Your task to perform on an android device: Search for "macbook pro 13 inch" on ebay.com, select the first entry, add it to the cart, then select checkout. Image 0: 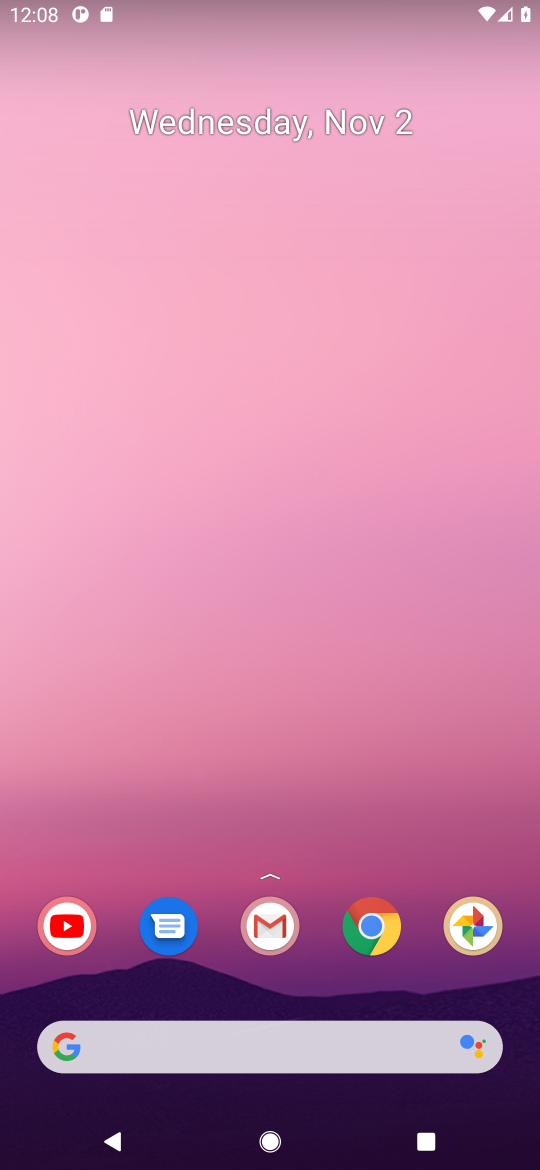
Step 0: click (377, 934)
Your task to perform on an android device: Search for "macbook pro 13 inch" on ebay.com, select the first entry, add it to the cart, then select checkout. Image 1: 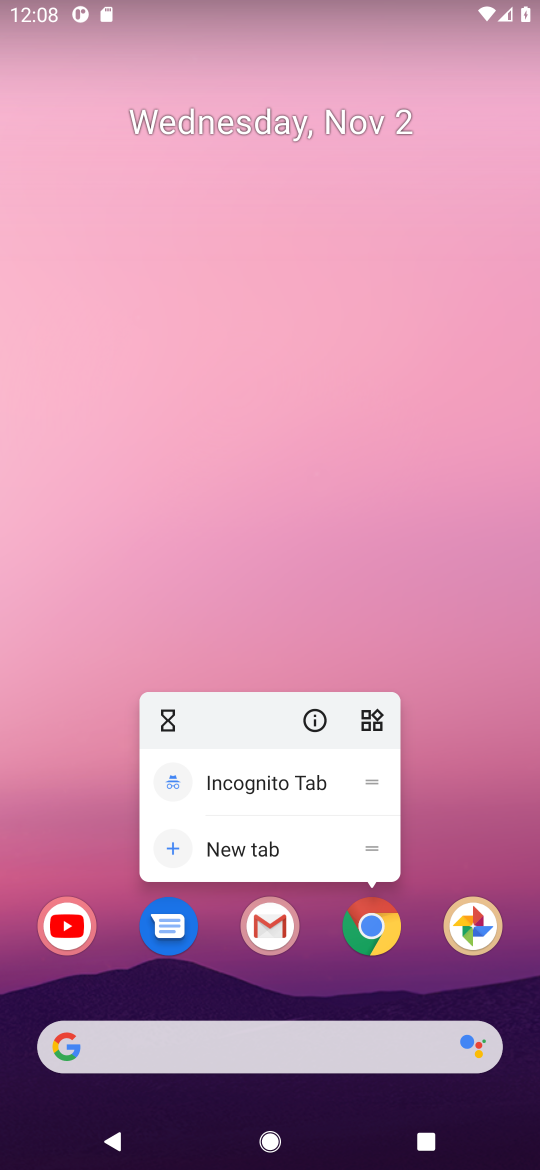
Step 1: click (377, 934)
Your task to perform on an android device: Search for "macbook pro 13 inch" on ebay.com, select the first entry, add it to the cart, then select checkout. Image 2: 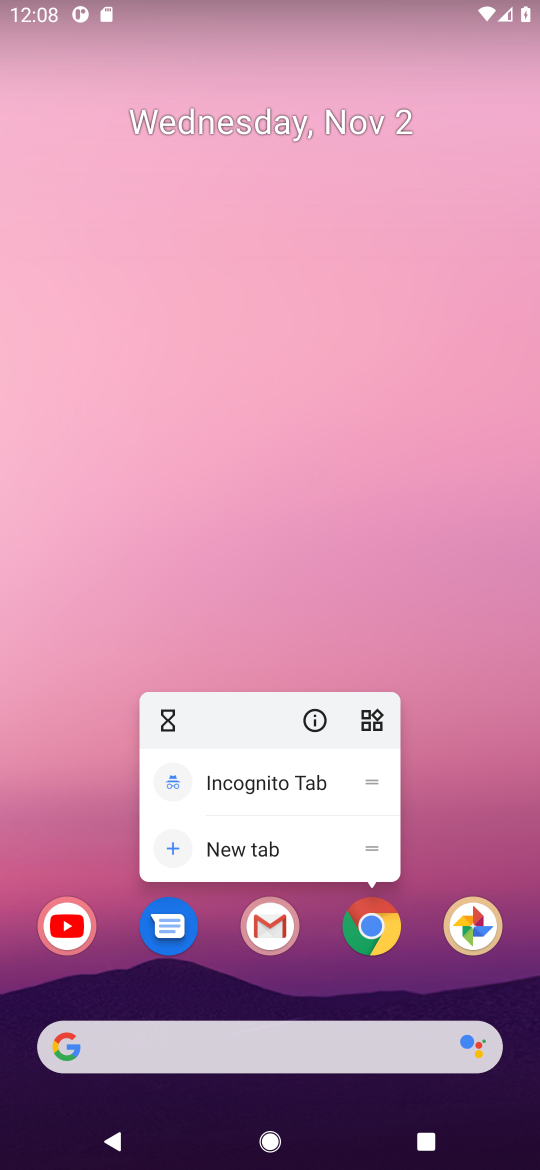
Step 2: click (377, 943)
Your task to perform on an android device: Search for "macbook pro 13 inch" on ebay.com, select the first entry, add it to the cart, then select checkout. Image 3: 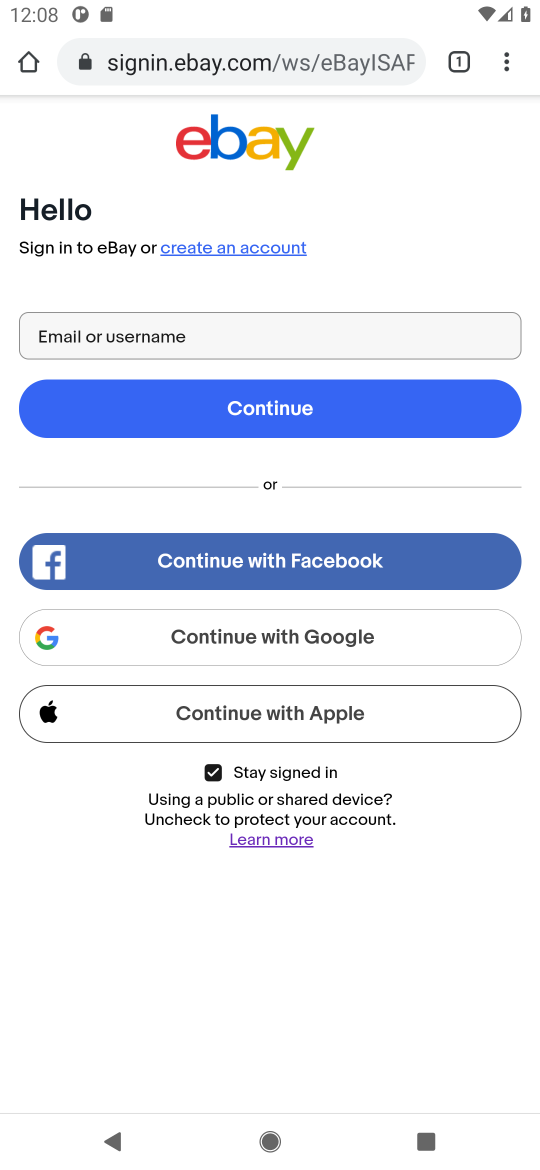
Step 3: click (338, 62)
Your task to perform on an android device: Search for "macbook pro 13 inch" on ebay.com, select the first entry, add it to the cart, then select checkout. Image 4: 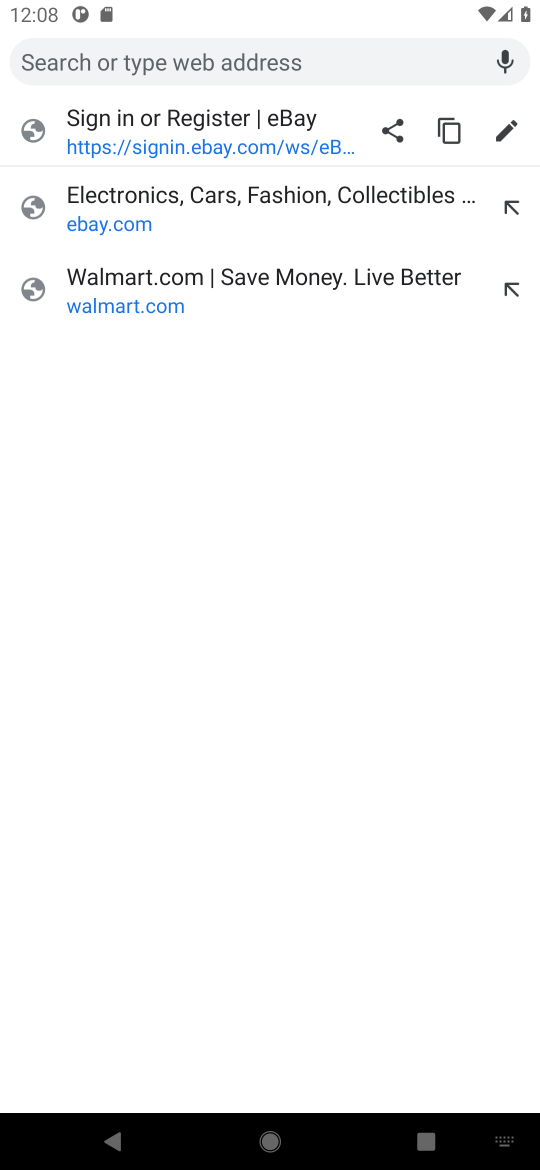
Step 4: type "ebay.com"
Your task to perform on an android device: Search for "macbook pro 13 inch" on ebay.com, select the first entry, add it to the cart, then select checkout. Image 5: 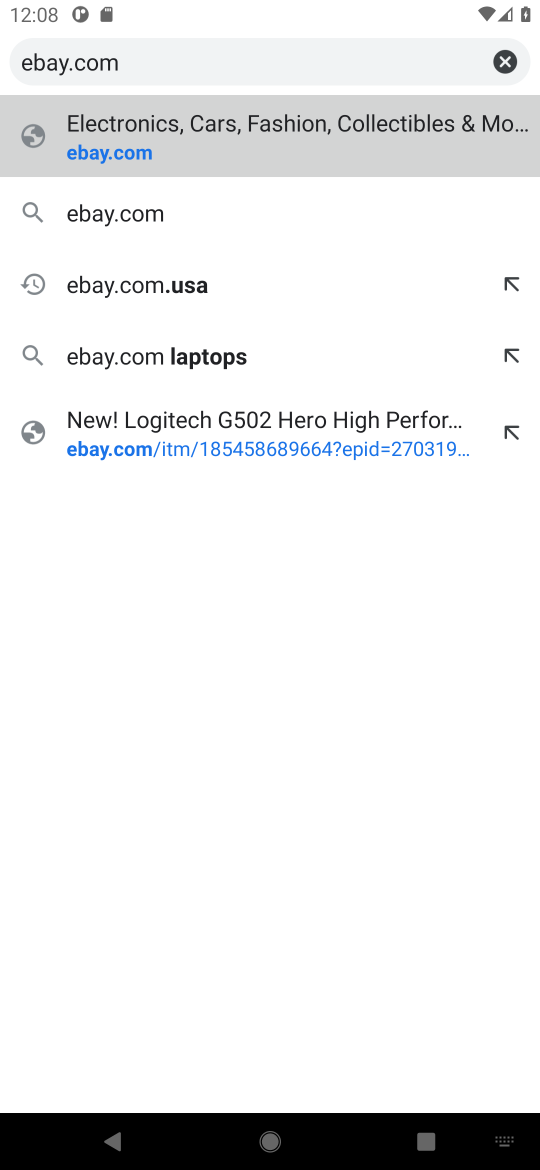
Step 5: press enter
Your task to perform on an android device: Search for "macbook pro 13 inch" on ebay.com, select the first entry, add it to the cart, then select checkout. Image 6: 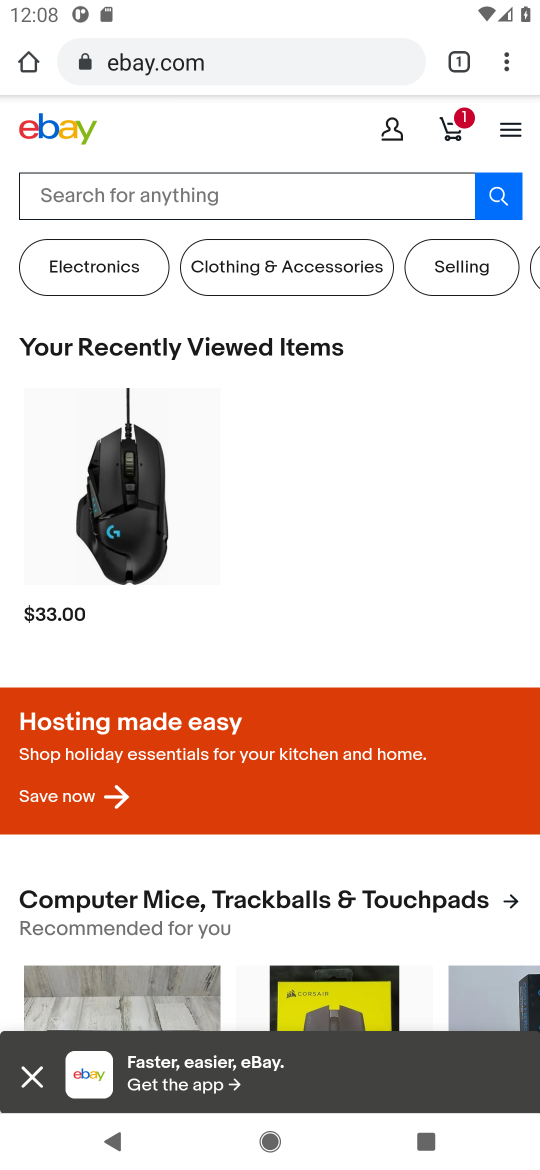
Step 6: click (91, 191)
Your task to perform on an android device: Search for "macbook pro 13 inch" on ebay.com, select the first entry, add it to the cart, then select checkout. Image 7: 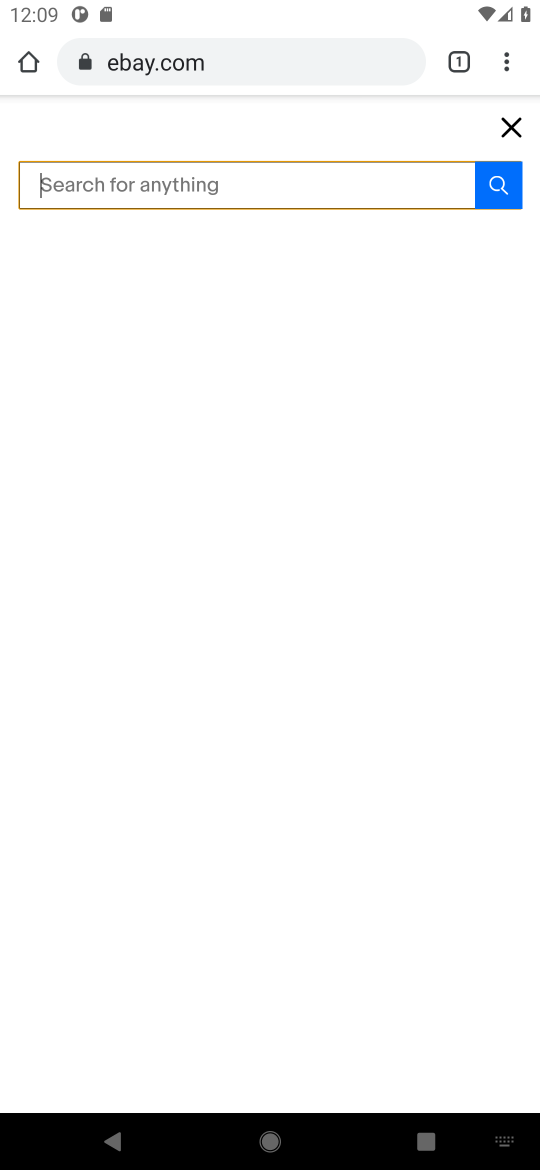
Step 7: type "macbook pro 13 inch"
Your task to perform on an android device: Search for "macbook pro 13 inch" on ebay.com, select the first entry, add it to the cart, then select checkout. Image 8: 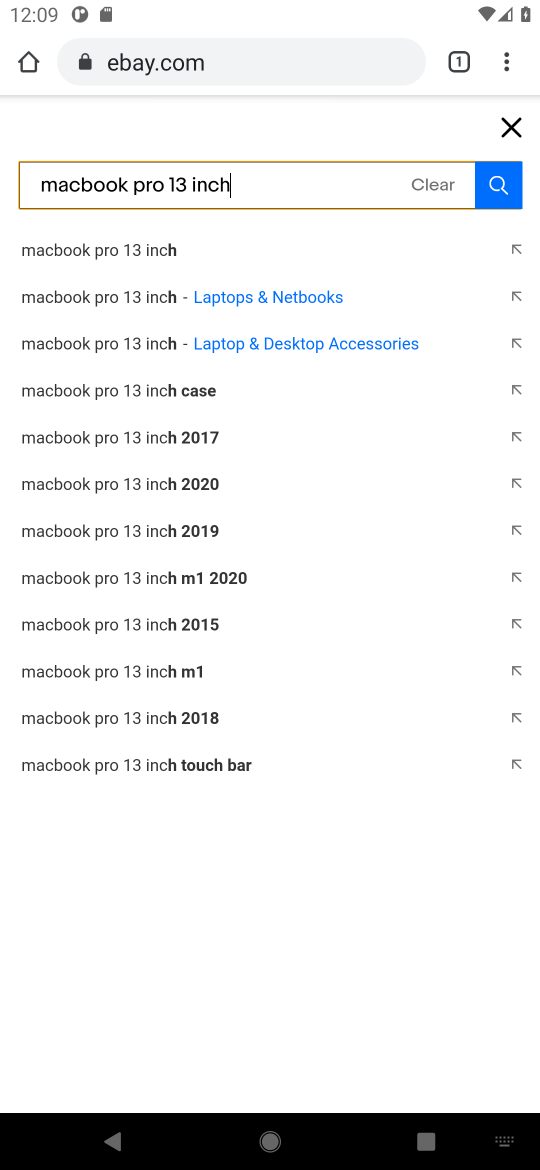
Step 8: press enter
Your task to perform on an android device: Search for "macbook pro 13 inch" on ebay.com, select the first entry, add it to the cart, then select checkout. Image 9: 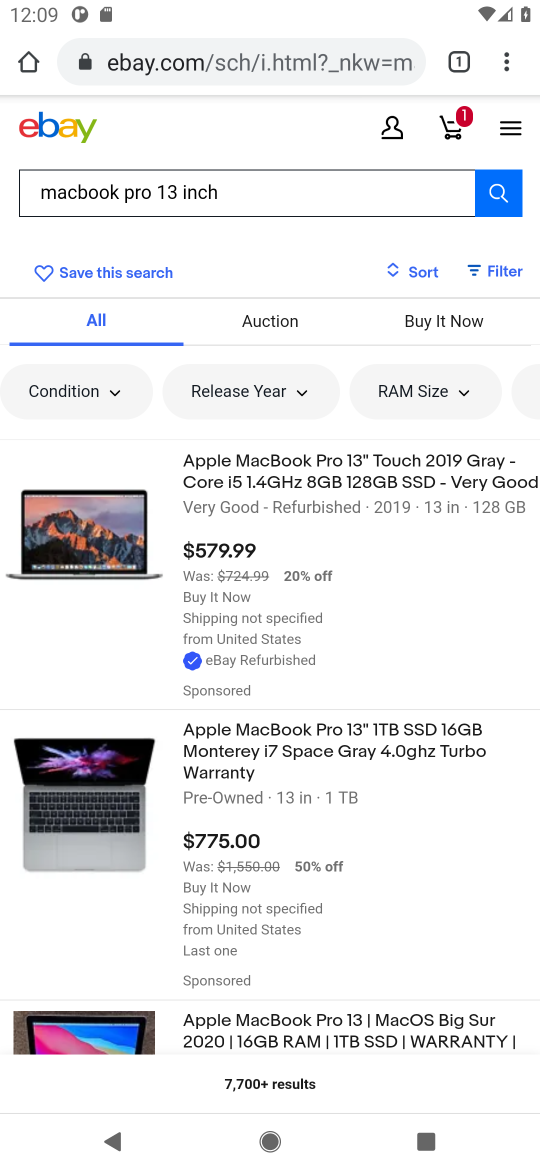
Step 9: click (391, 497)
Your task to perform on an android device: Search for "macbook pro 13 inch" on ebay.com, select the first entry, add it to the cart, then select checkout. Image 10: 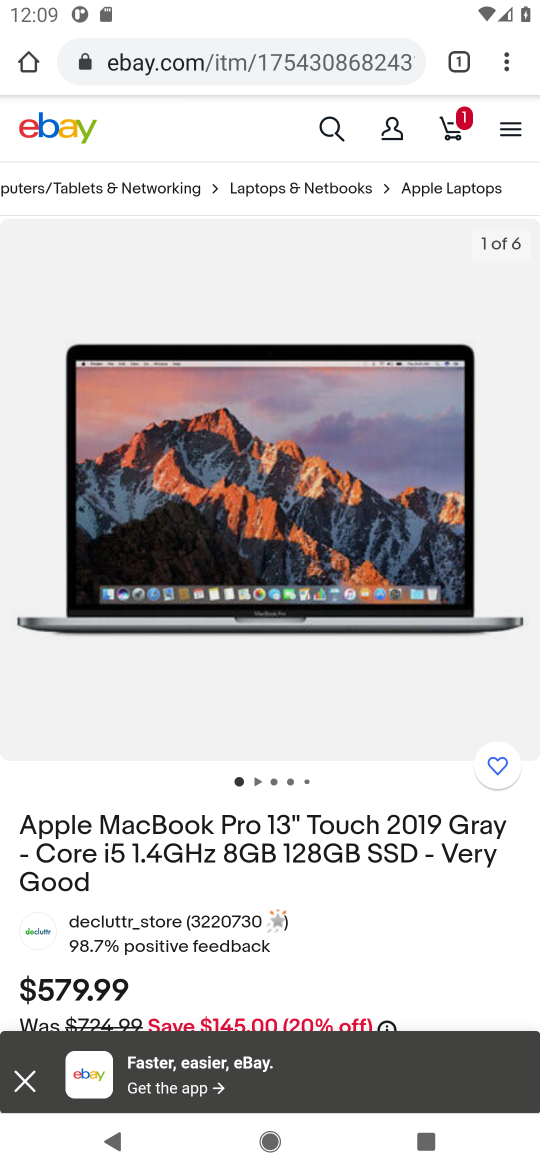
Step 10: drag from (176, 739) to (421, 7)
Your task to perform on an android device: Search for "macbook pro 13 inch" on ebay.com, select the first entry, add it to the cart, then select checkout. Image 11: 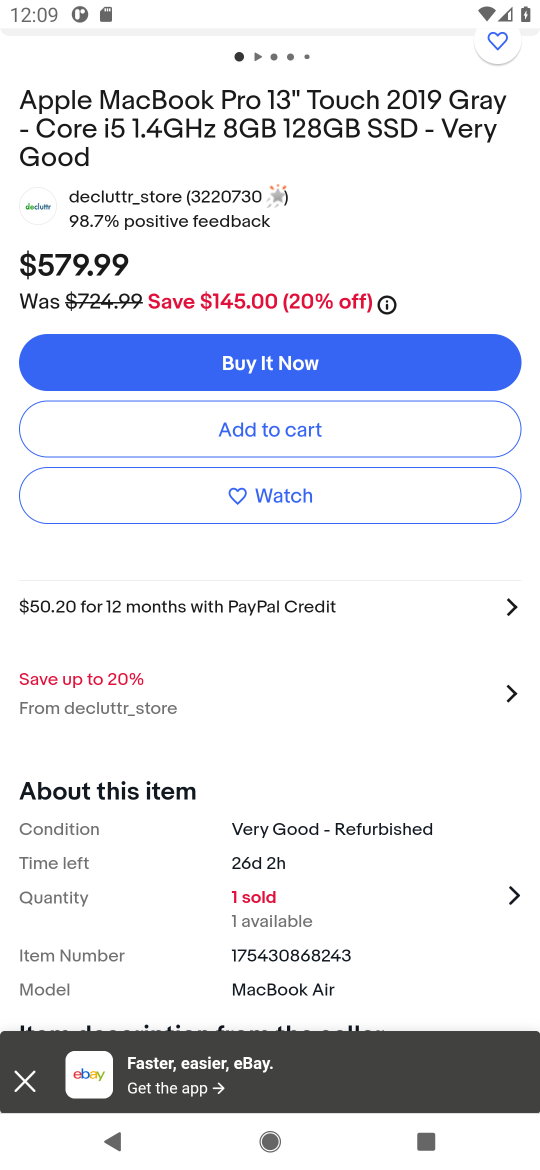
Step 11: click (250, 429)
Your task to perform on an android device: Search for "macbook pro 13 inch" on ebay.com, select the first entry, add it to the cart, then select checkout. Image 12: 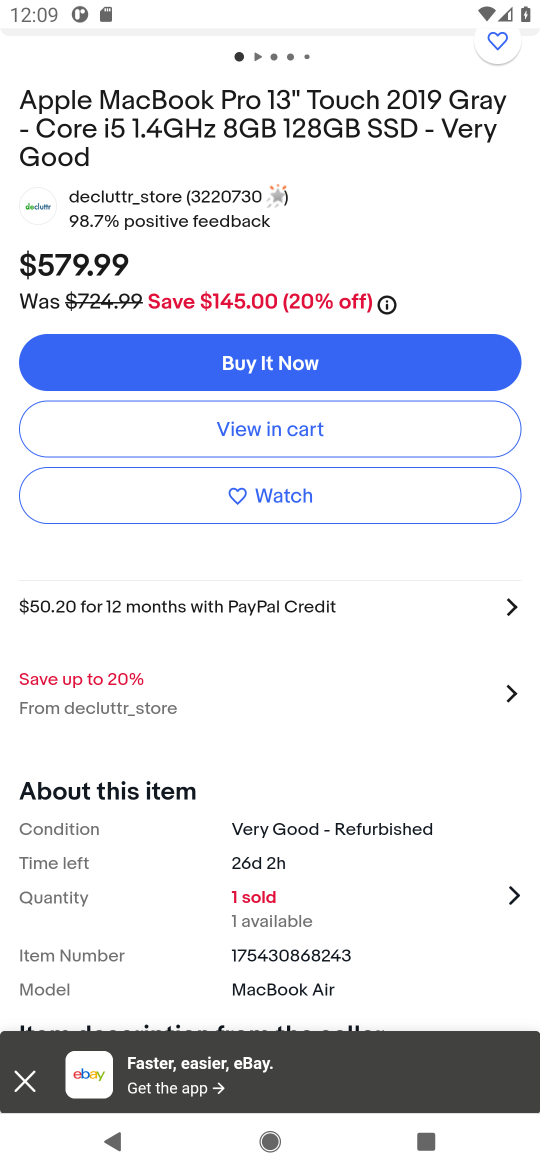
Step 12: click (262, 434)
Your task to perform on an android device: Search for "macbook pro 13 inch" on ebay.com, select the first entry, add it to the cart, then select checkout. Image 13: 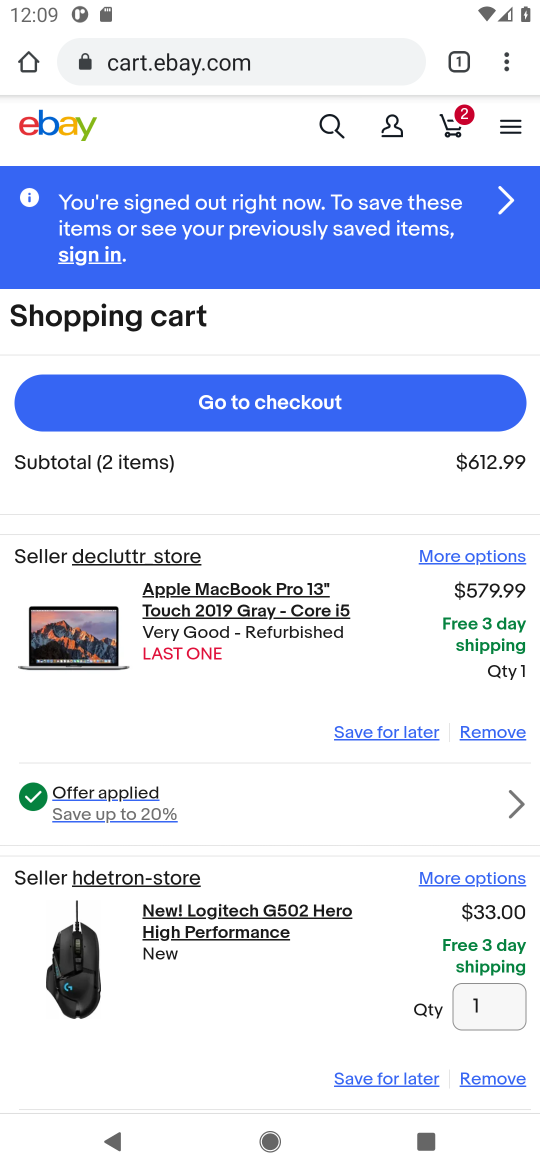
Step 13: click (293, 399)
Your task to perform on an android device: Search for "macbook pro 13 inch" on ebay.com, select the first entry, add it to the cart, then select checkout. Image 14: 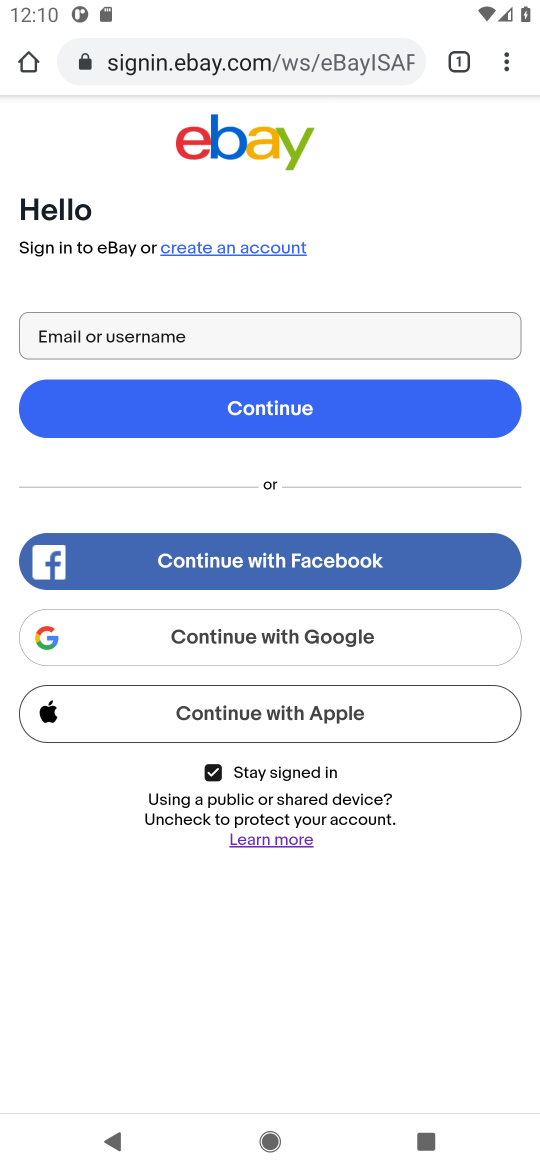
Step 14: task complete